Your task to perform on an android device: Go to Yahoo.com Image 0: 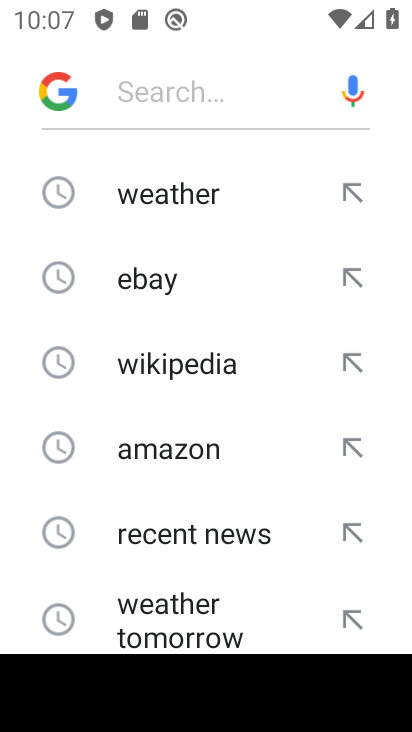
Step 0: press home button
Your task to perform on an android device: Go to Yahoo.com Image 1: 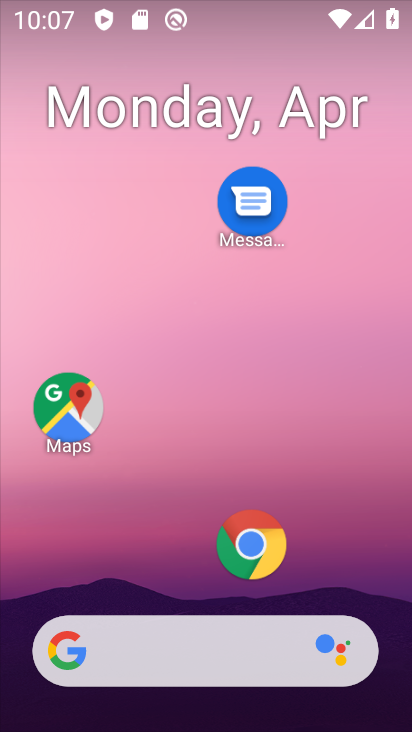
Step 1: click (248, 542)
Your task to perform on an android device: Go to Yahoo.com Image 2: 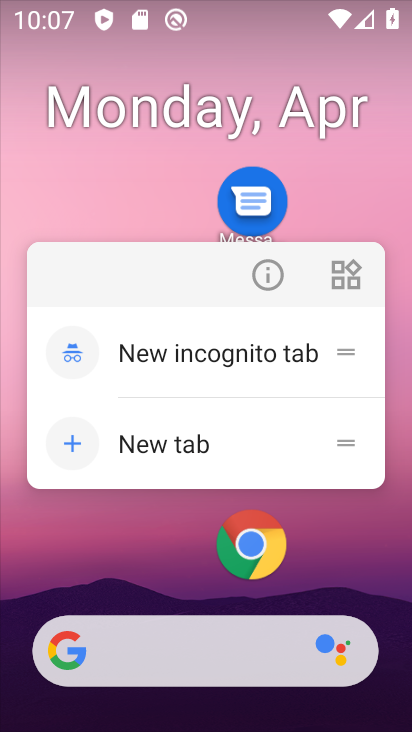
Step 2: click (236, 538)
Your task to perform on an android device: Go to Yahoo.com Image 3: 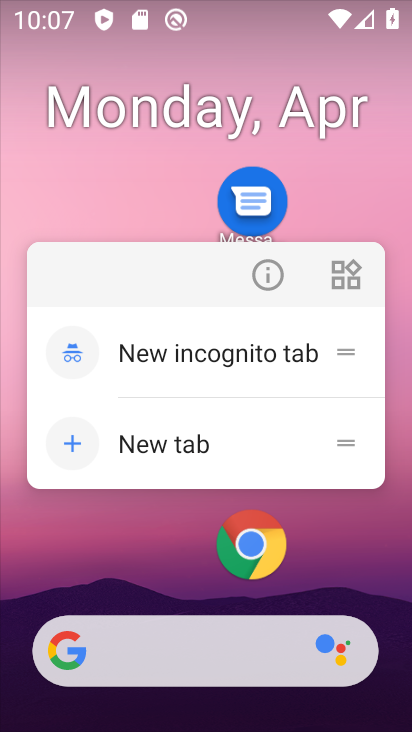
Step 3: click (353, 546)
Your task to perform on an android device: Go to Yahoo.com Image 4: 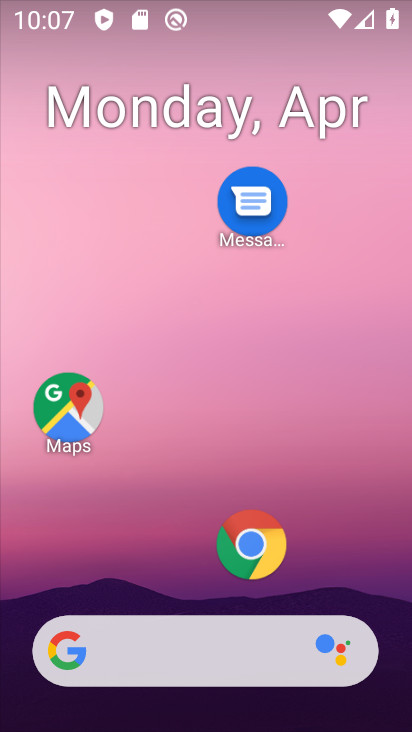
Step 4: drag from (183, 578) to (200, 60)
Your task to perform on an android device: Go to Yahoo.com Image 5: 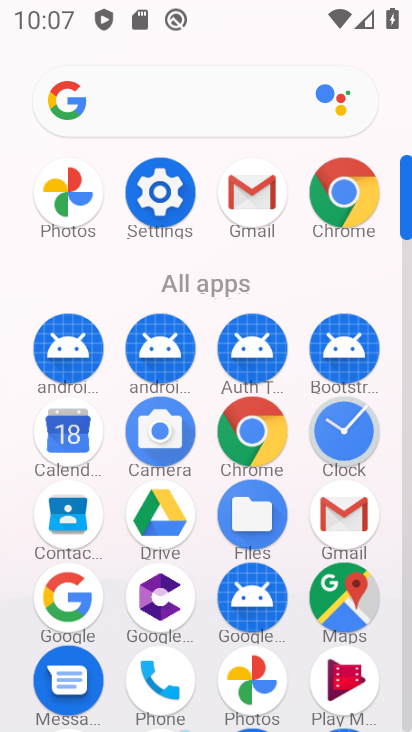
Step 5: click (346, 190)
Your task to perform on an android device: Go to Yahoo.com Image 6: 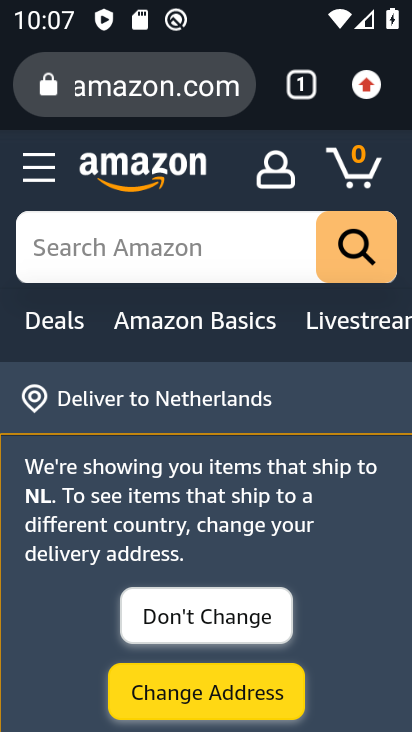
Step 6: click (294, 78)
Your task to perform on an android device: Go to Yahoo.com Image 7: 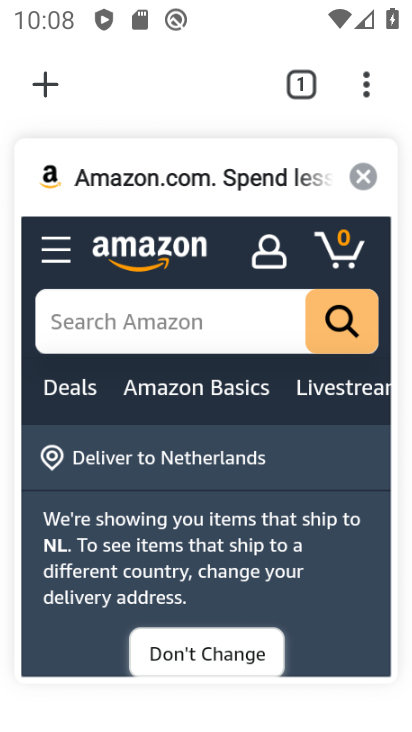
Step 7: click (356, 169)
Your task to perform on an android device: Go to Yahoo.com Image 8: 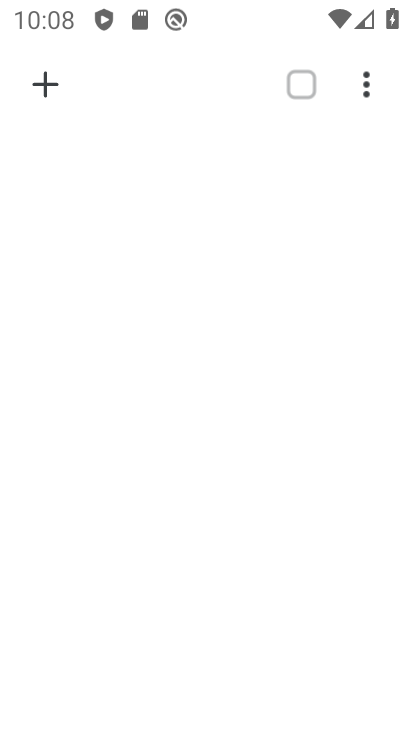
Step 8: click (55, 72)
Your task to perform on an android device: Go to Yahoo.com Image 9: 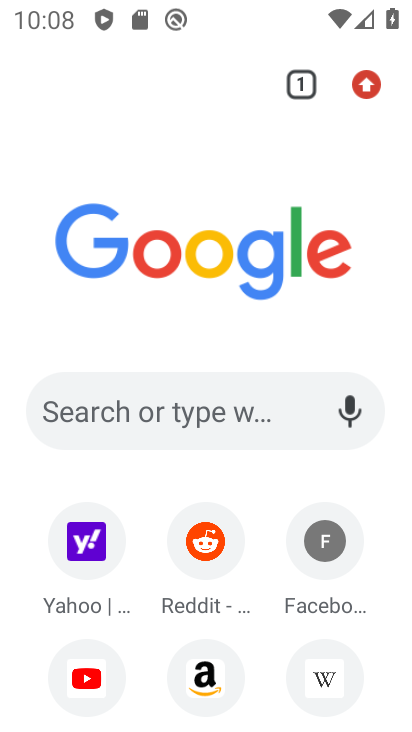
Step 9: click (91, 538)
Your task to perform on an android device: Go to Yahoo.com Image 10: 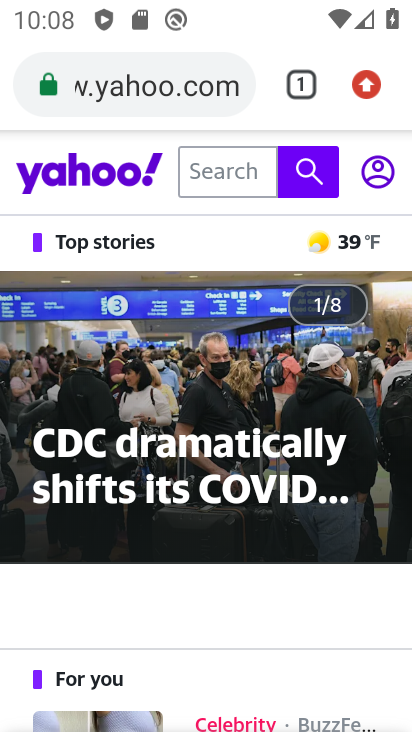
Step 10: task complete